Your task to perform on an android device: add a label to a message in the gmail app Image 0: 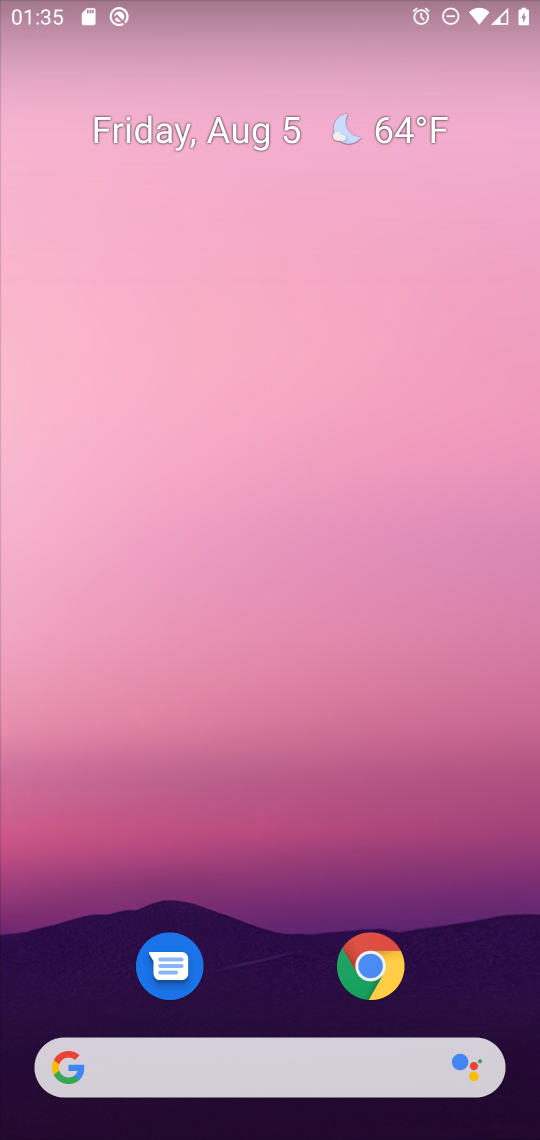
Step 0: drag from (261, 950) to (265, 85)
Your task to perform on an android device: add a label to a message in the gmail app Image 1: 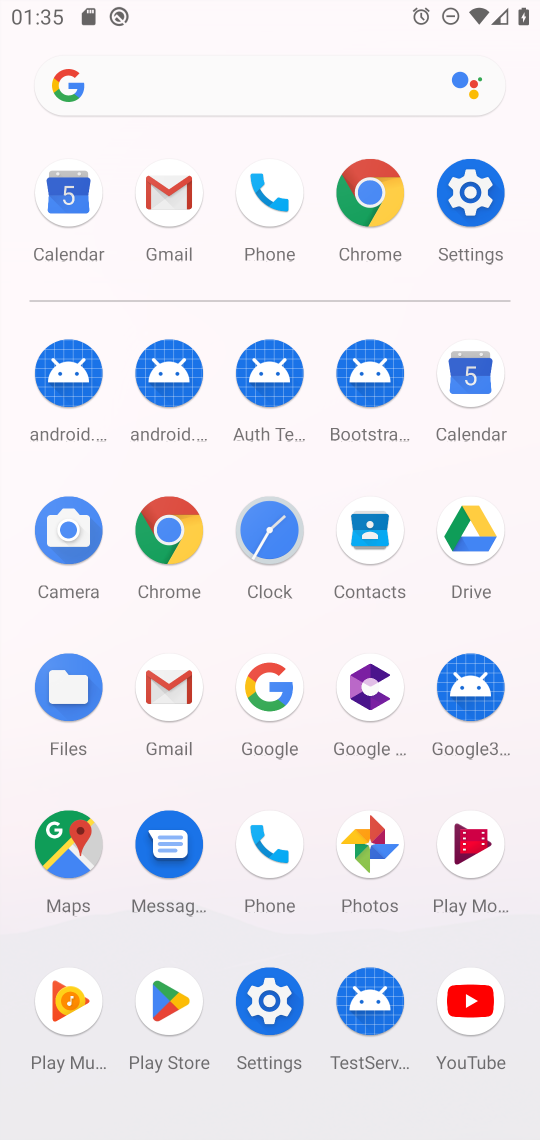
Step 1: click (180, 188)
Your task to perform on an android device: add a label to a message in the gmail app Image 2: 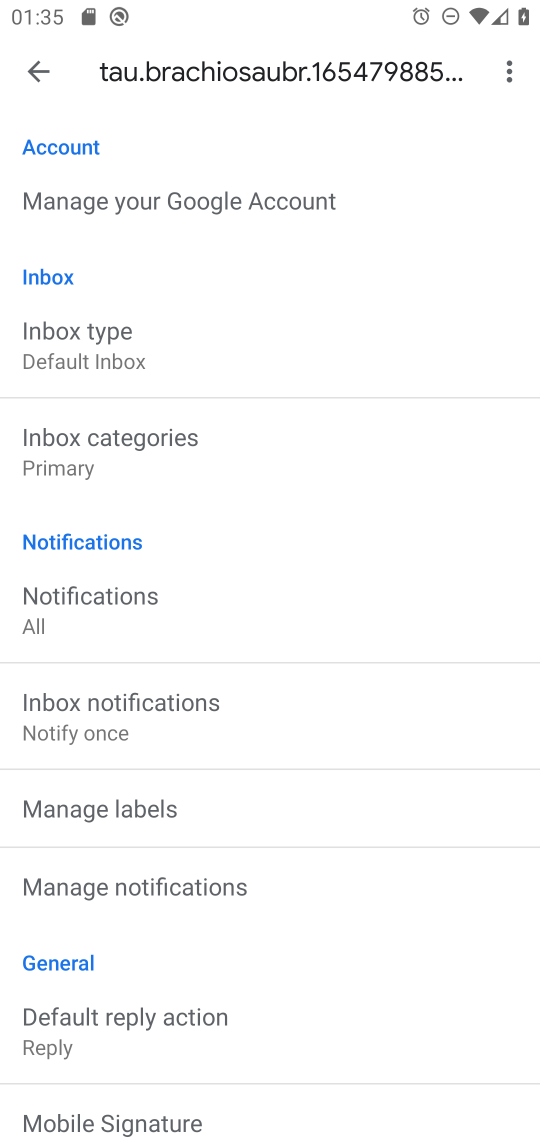
Step 2: click (39, 67)
Your task to perform on an android device: add a label to a message in the gmail app Image 3: 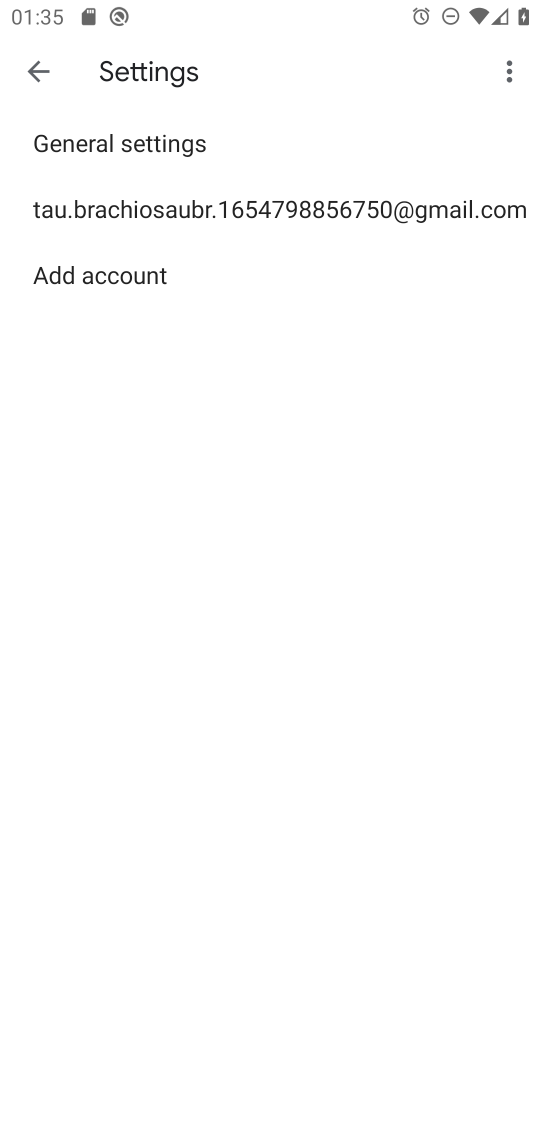
Step 3: click (39, 69)
Your task to perform on an android device: add a label to a message in the gmail app Image 4: 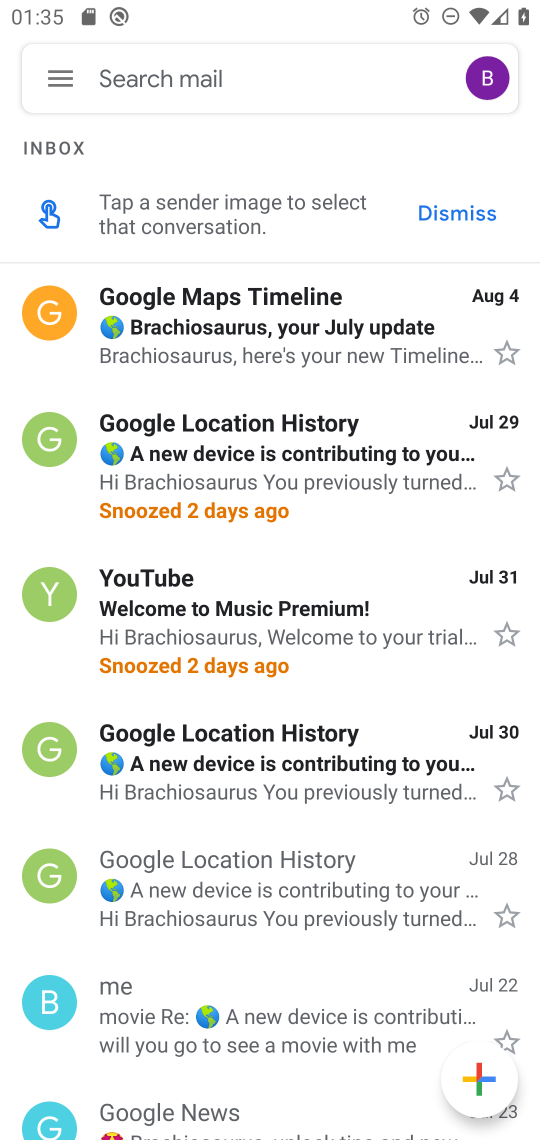
Step 4: click (254, 899)
Your task to perform on an android device: add a label to a message in the gmail app Image 5: 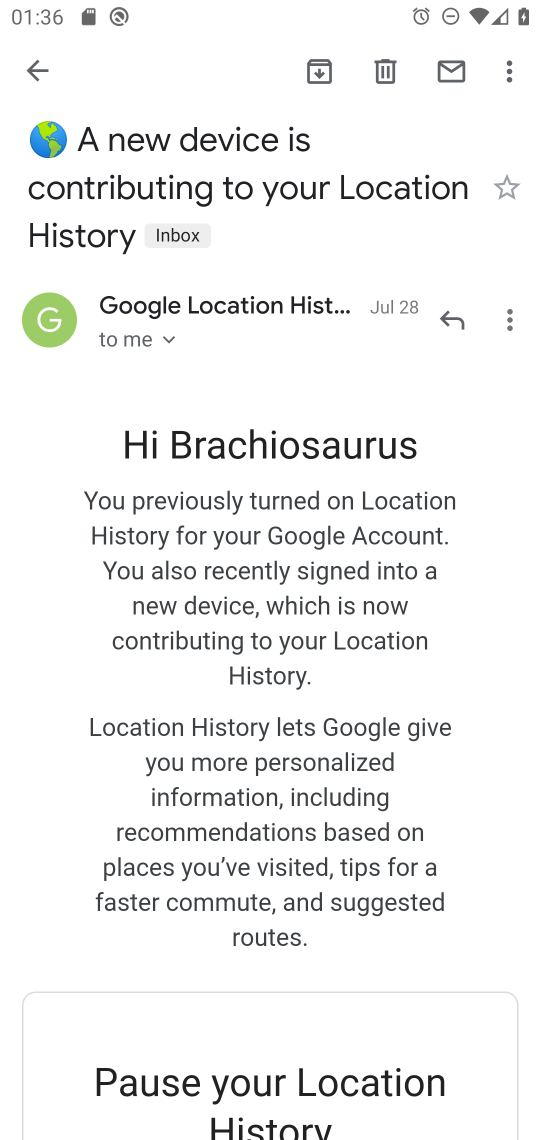
Step 5: click (507, 70)
Your task to perform on an android device: add a label to a message in the gmail app Image 6: 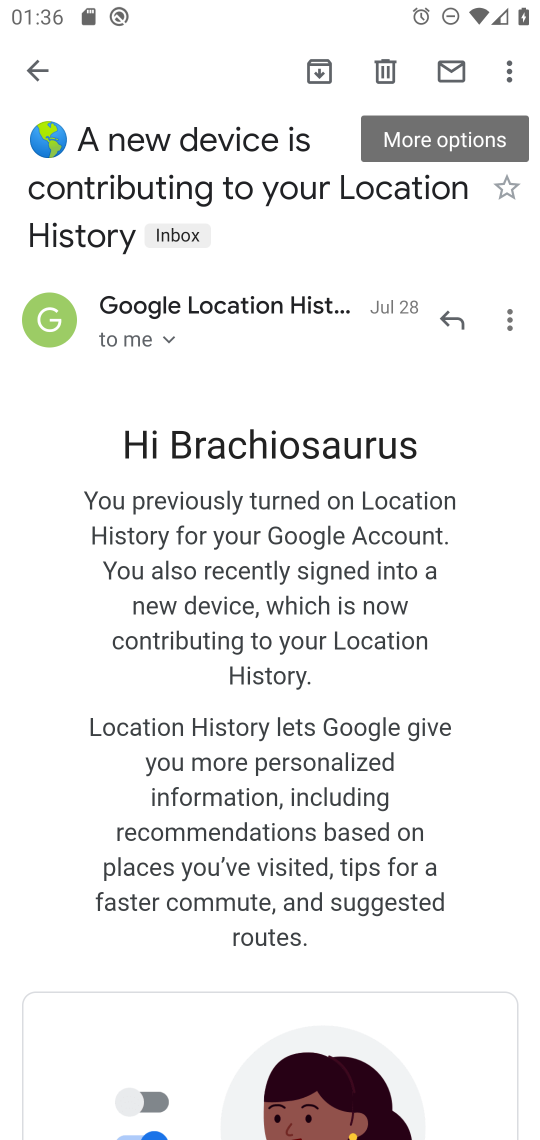
Step 6: click (507, 70)
Your task to perform on an android device: add a label to a message in the gmail app Image 7: 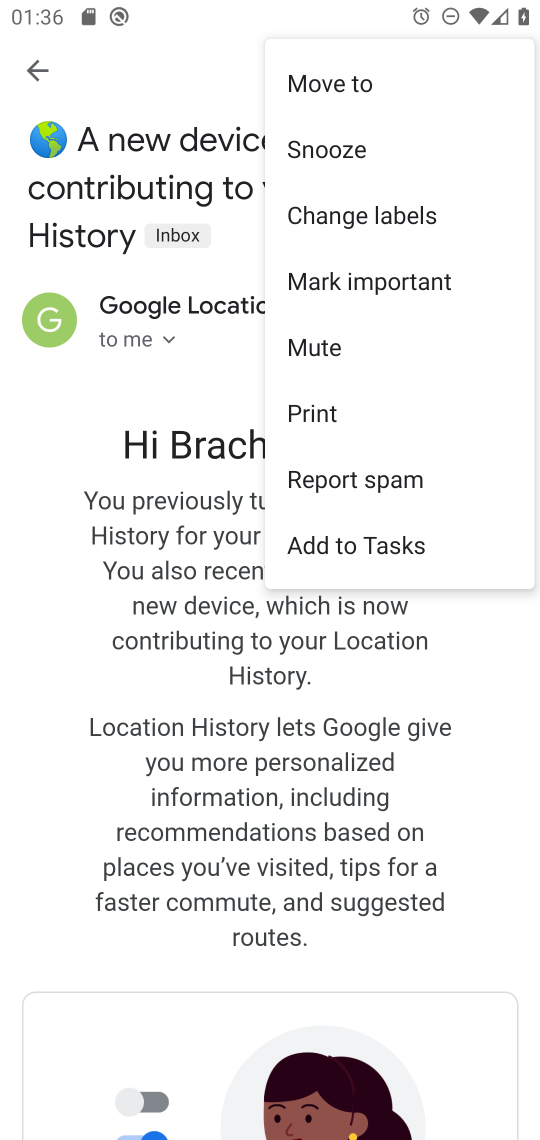
Step 7: click (437, 287)
Your task to perform on an android device: add a label to a message in the gmail app Image 8: 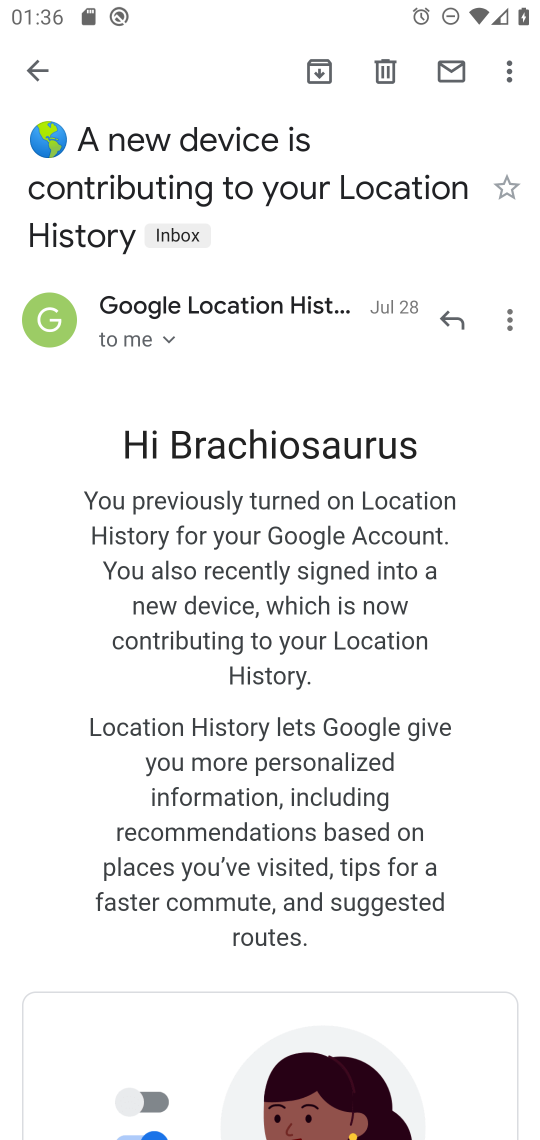
Step 8: task complete